Your task to perform on an android device: Open Google Maps and go to "Timeline" Image 0: 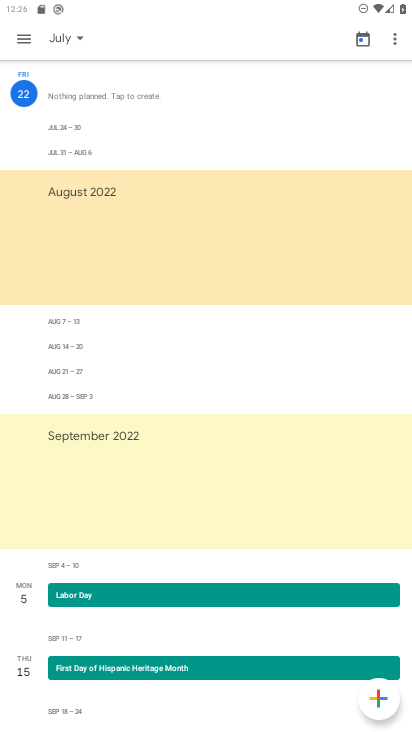
Step 0: press home button
Your task to perform on an android device: Open Google Maps and go to "Timeline" Image 1: 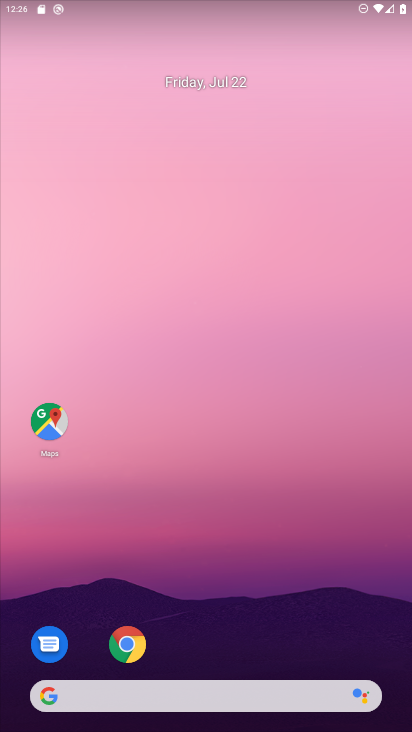
Step 1: click (50, 444)
Your task to perform on an android device: Open Google Maps and go to "Timeline" Image 2: 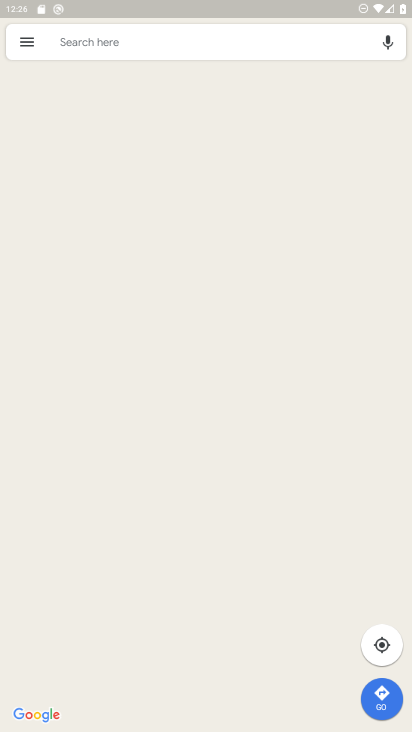
Step 2: click (13, 38)
Your task to perform on an android device: Open Google Maps and go to "Timeline" Image 3: 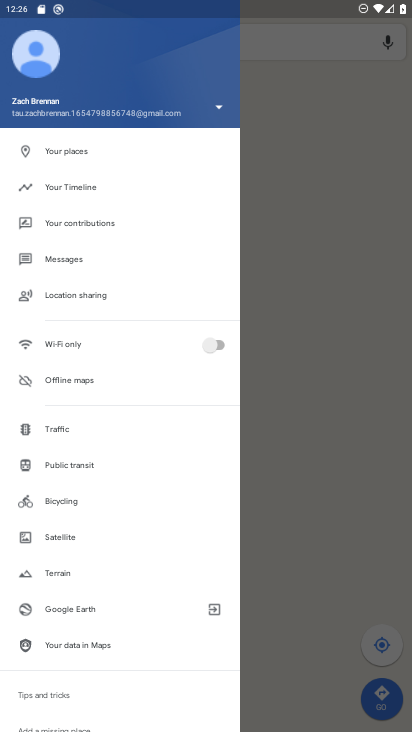
Step 3: click (56, 199)
Your task to perform on an android device: Open Google Maps and go to "Timeline" Image 4: 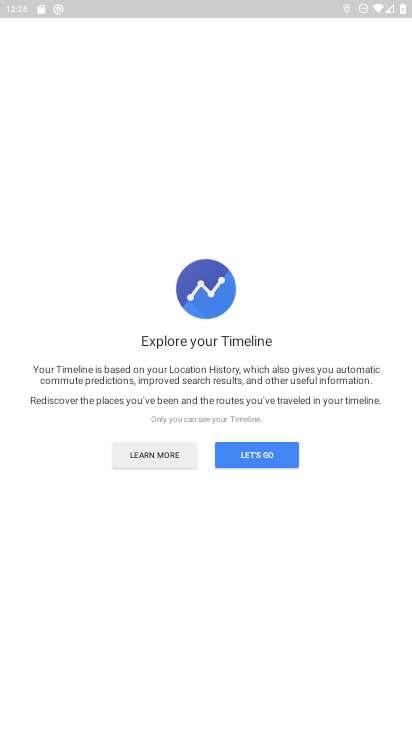
Step 4: click (267, 457)
Your task to perform on an android device: Open Google Maps and go to "Timeline" Image 5: 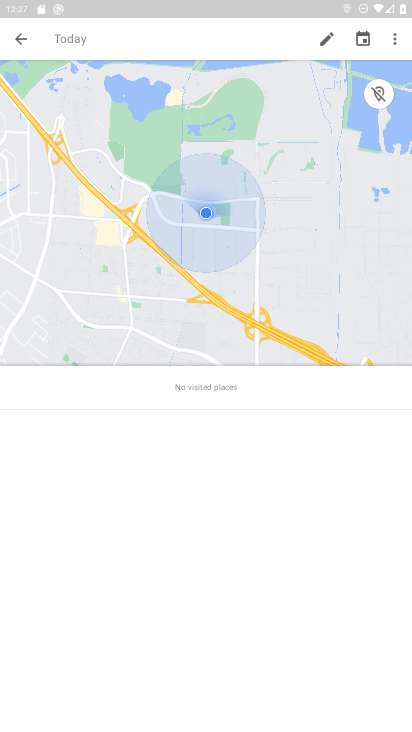
Step 5: task complete